Your task to perform on an android device: toggle data saver in the chrome app Image 0: 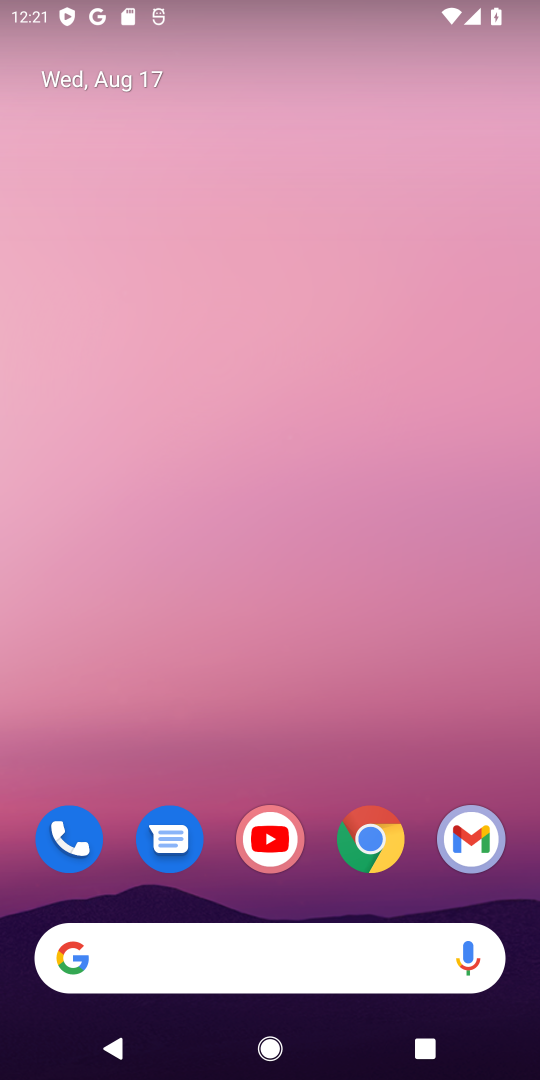
Step 0: click (366, 842)
Your task to perform on an android device: toggle data saver in the chrome app Image 1: 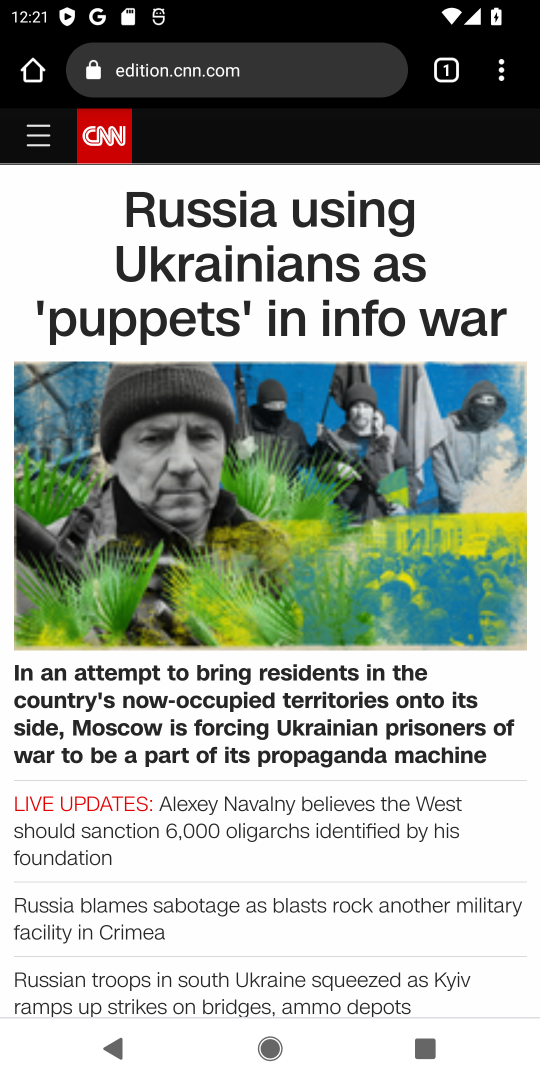
Step 1: drag from (501, 73) to (328, 879)
Your task to perform on an android device: toggle data saver in the chrome app Image 2: 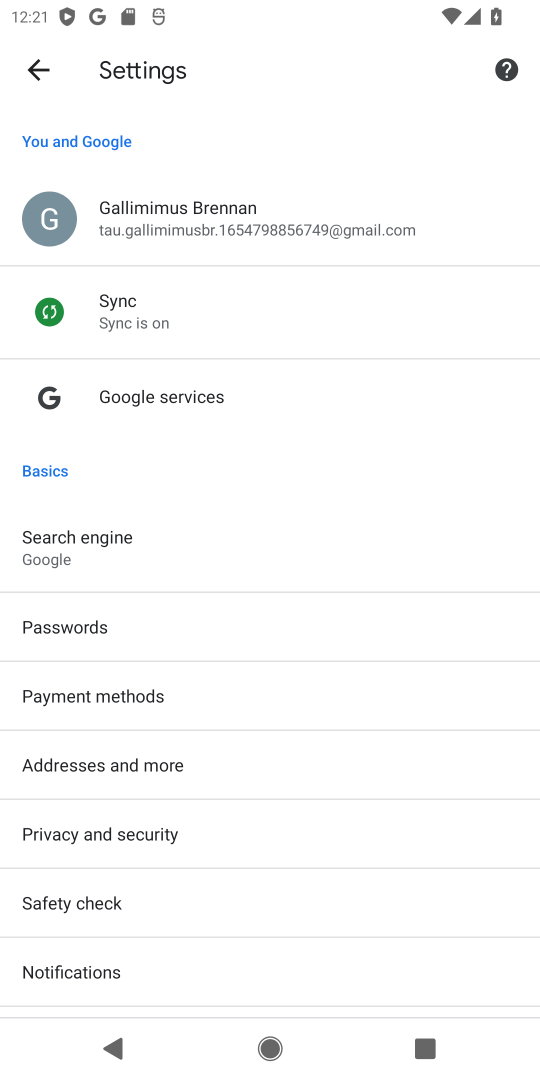
Step 2: drag from (161, 910) to (297, 675)
Your task to perform on an android device: toggle data saver in the chrome app Image 3: 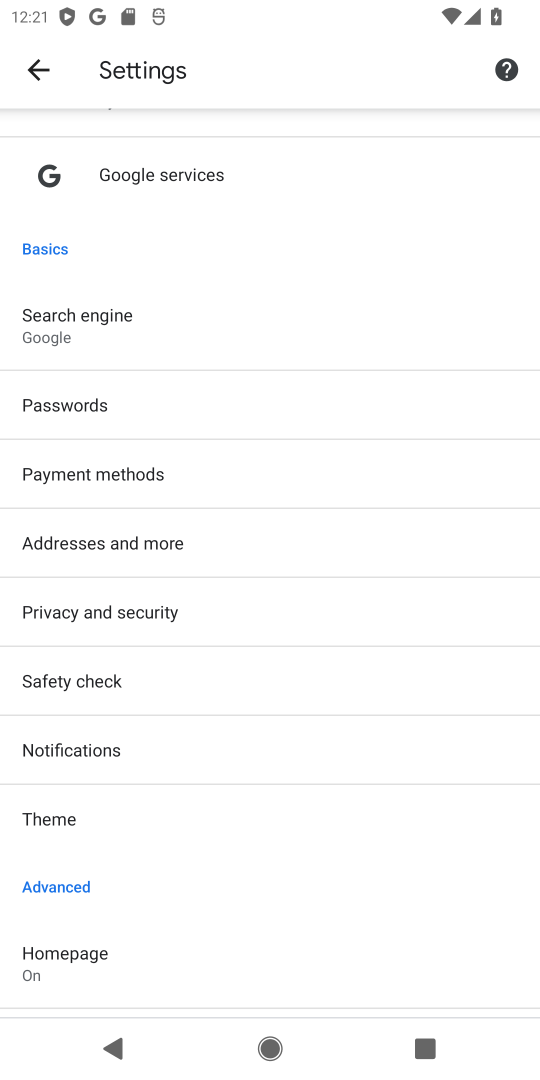
Step 3: drag from (151, 862) to (273, 660)
Your task to perform on an android device: toggle data saver in the chrome app Image 4: 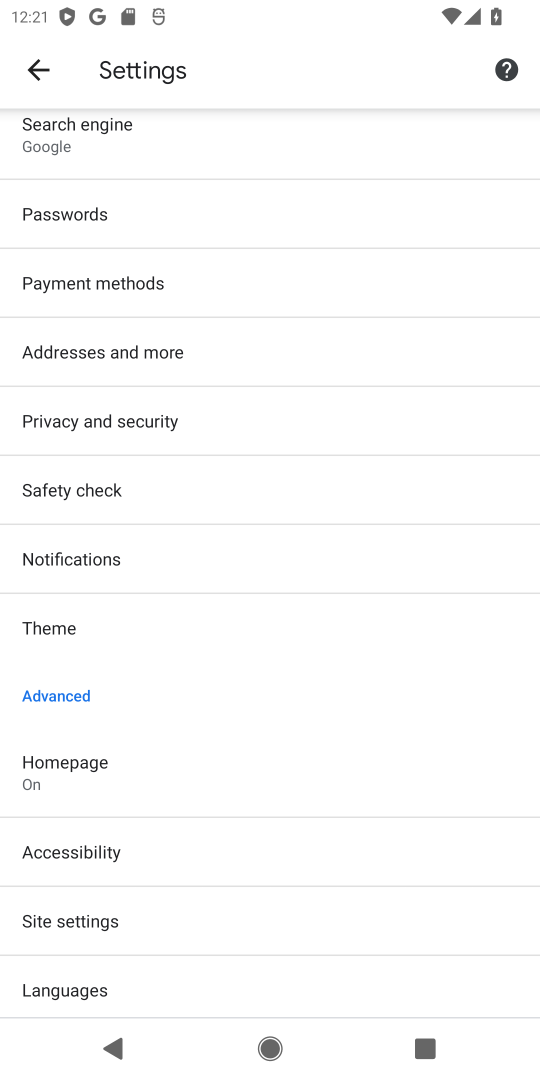
Step 4: drag from (147, 917) to (294, 742)
Your task to perform on an android device: toggle data saver in the chrome app Image 5: 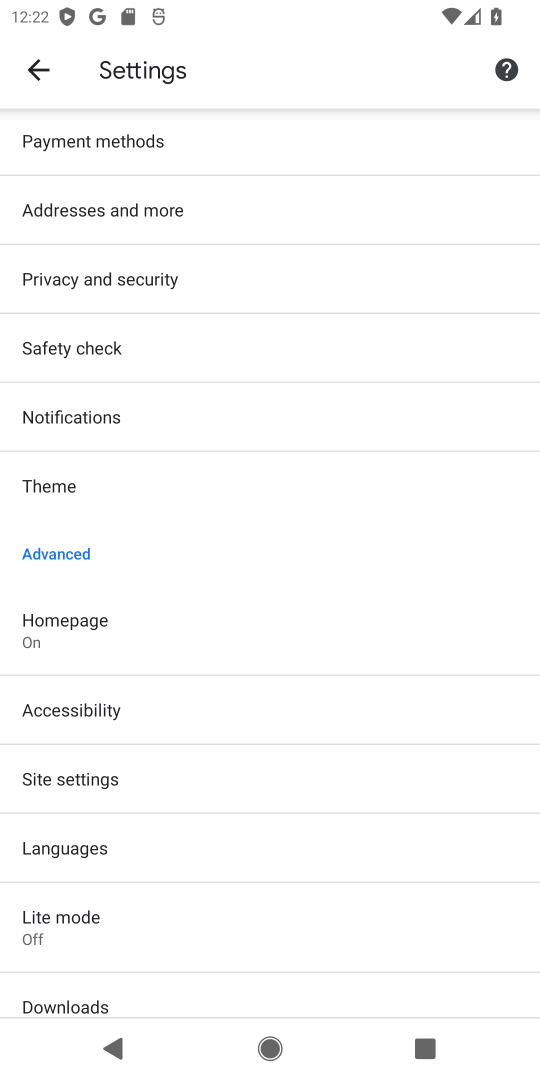
Step 5: click (97, 934)
Your task to perform on an android device: toggle data saver in the chrome app Image 6: 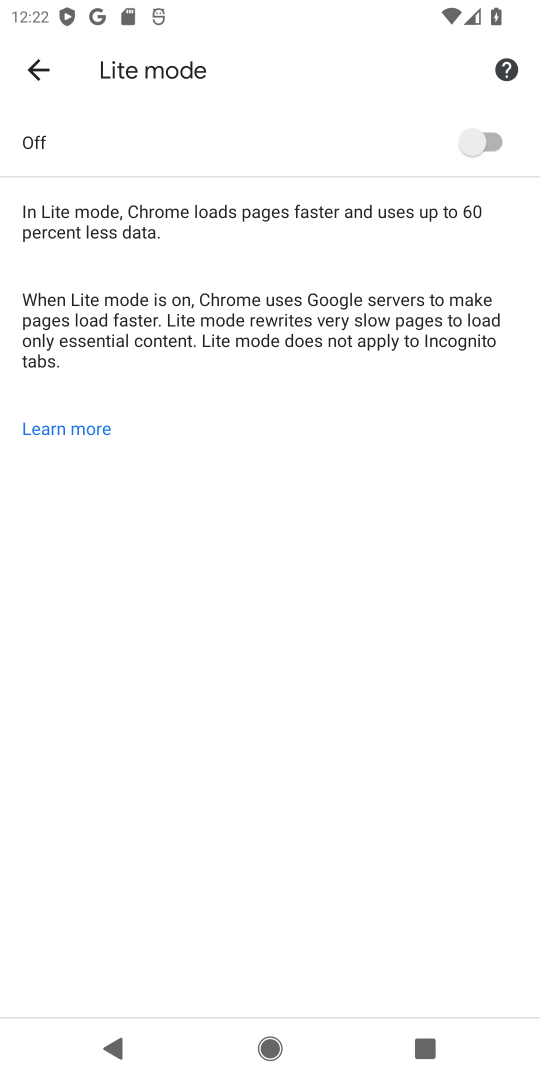
Step 6: click (489, 142)
Your task to perform on an android device: toggle data saver in the chrome app Image 7: 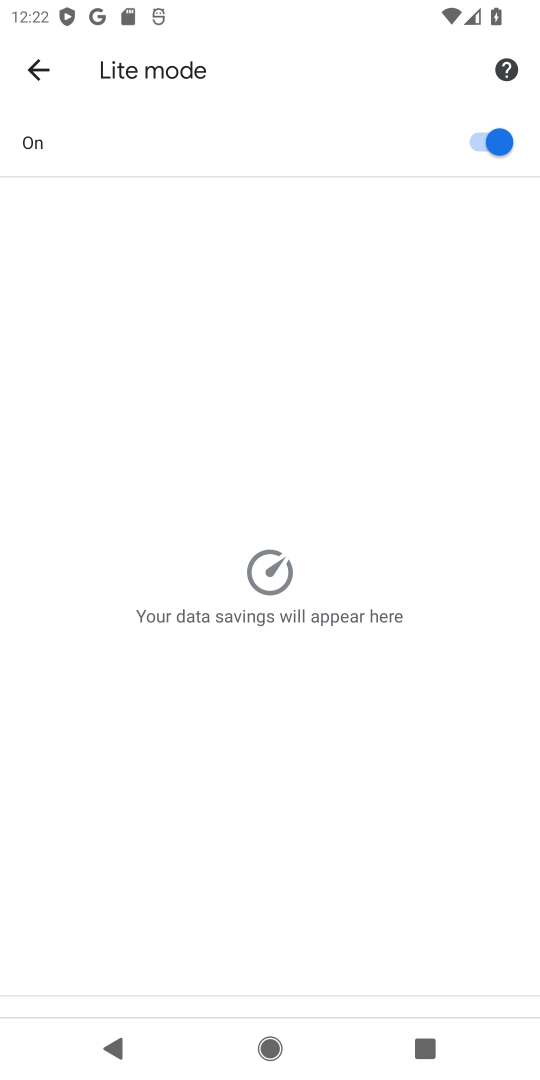
Step 7: task complete